Your task to perform on an android device: Show me productivity apps on the Play Store Image 0: 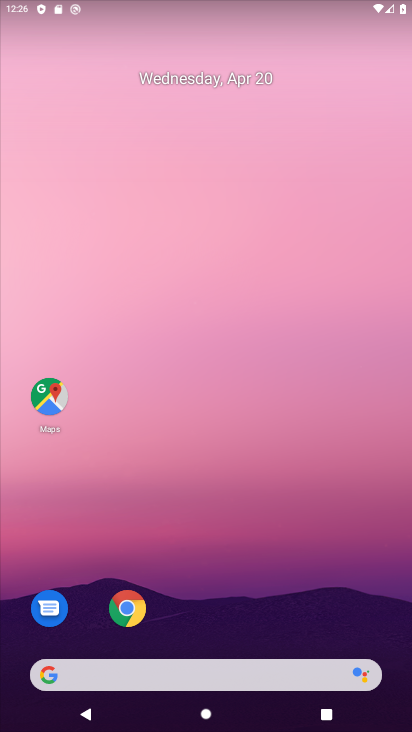
Step 0: drag from (323, 599) to (261, 188)
Your task to perform on an android device: Show me productivity apps on the Play Store Image 1: 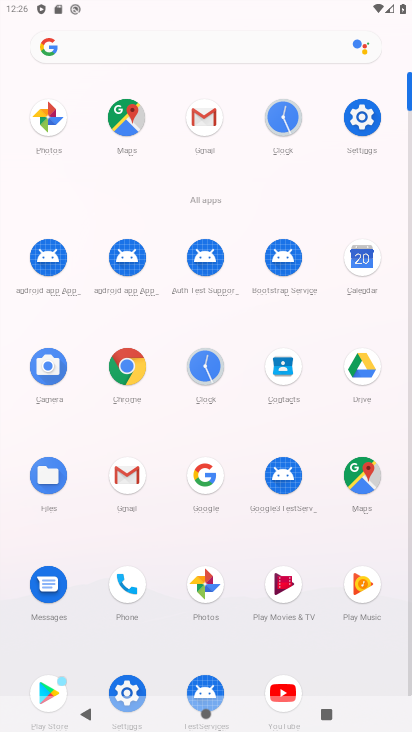
Step 1: click (42, 688)
Your task to perform on an android device: Show me productivity apps on the Play Store Image 2: 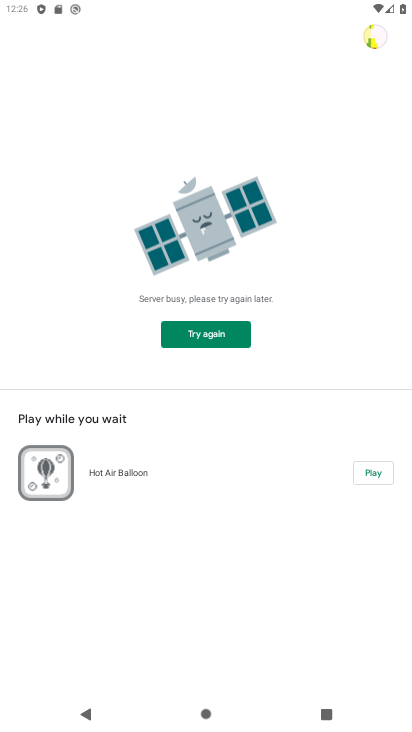
Step 2: task complete